Your task to perform on an android device: Search for Mexican restaurants on Maps Image 0: 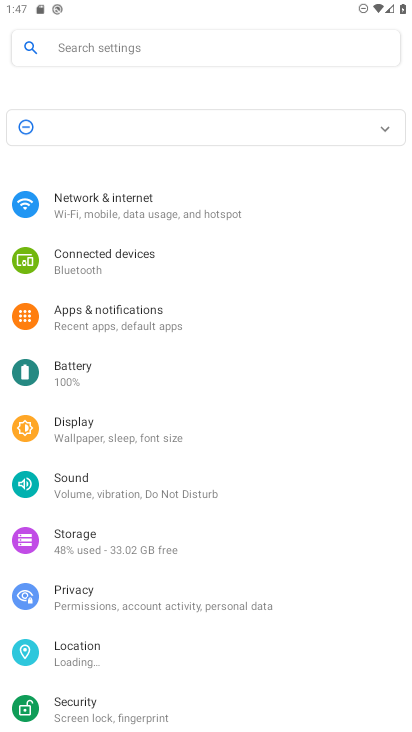
Step 0: drag from (177, 666) to (191, 567)
Your task to perform on an android device: Search for Mexican restaurants on Maps Image 1: 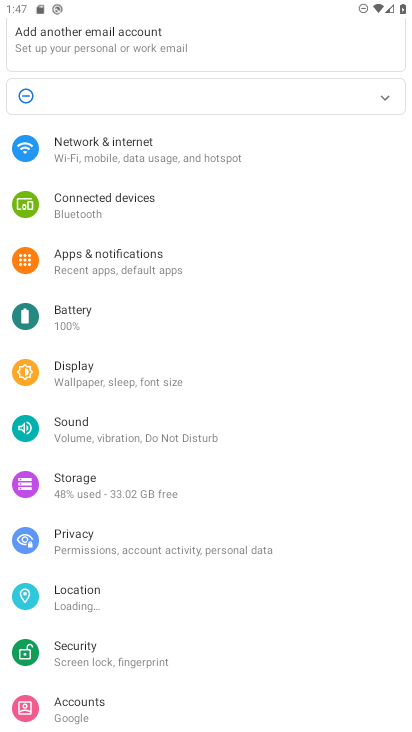
Step 1: press home button
Your task to perform on an android device: Search for Mexican restaurants on Maps Image 2: 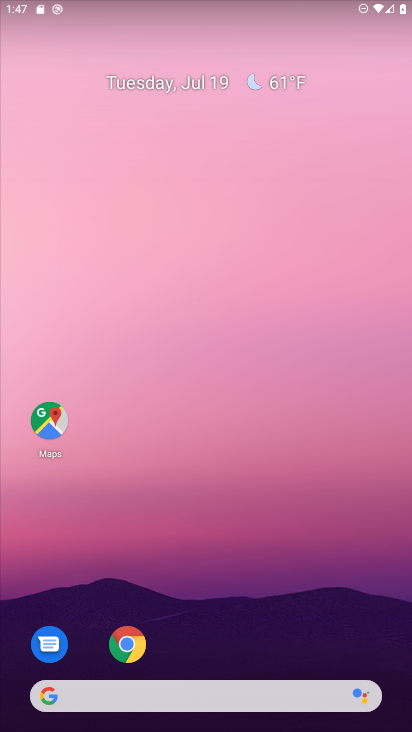
Step 2: drag from (221, 669) to (200, 179)
Your task to perform on an android device: Search for Mexican restaurants on Maps Image 3: 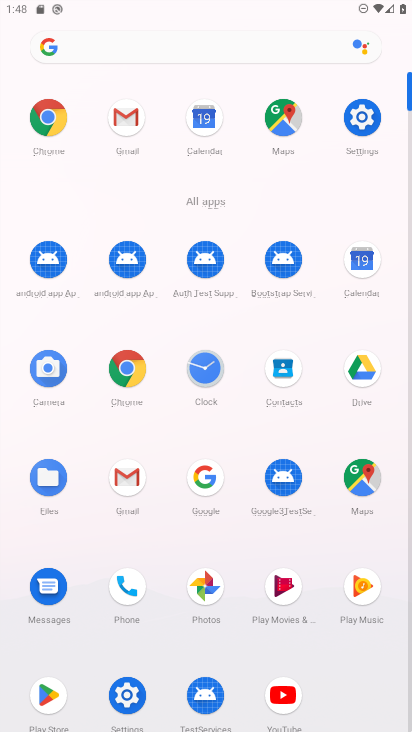
Step 3: click (371, 483)
Your task to perform on an android device: Search for Mexican restaurants on Maps Image 4: 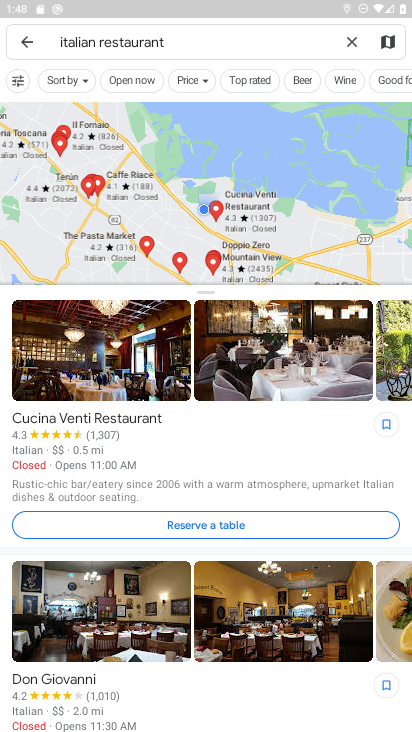
Step 4: click (349, 43)
Your task to perform on an android device: Search for Mexican restaurants on Maps Image 5: 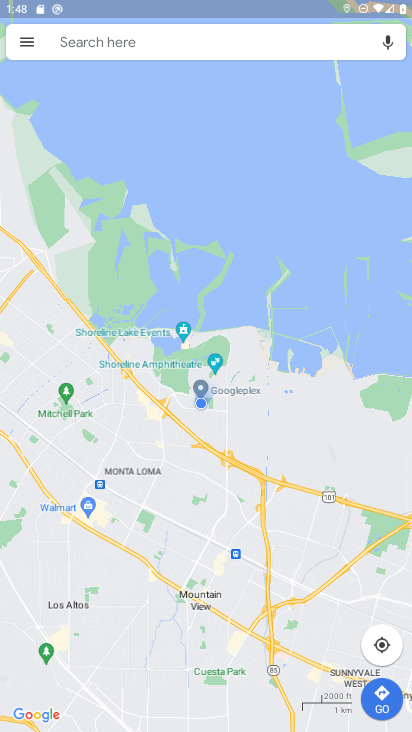
Step 5: click (199, 34)
Your task to perform on an android device: Search for Mexican restaurants on Maps Image 6: 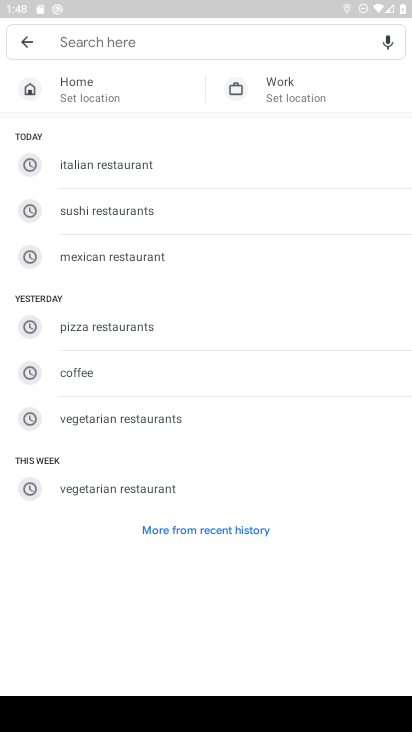
Step 6: click (96, 247)
Your task to perform on an android device: Search for Mexican restaurants on Maps Image 7: 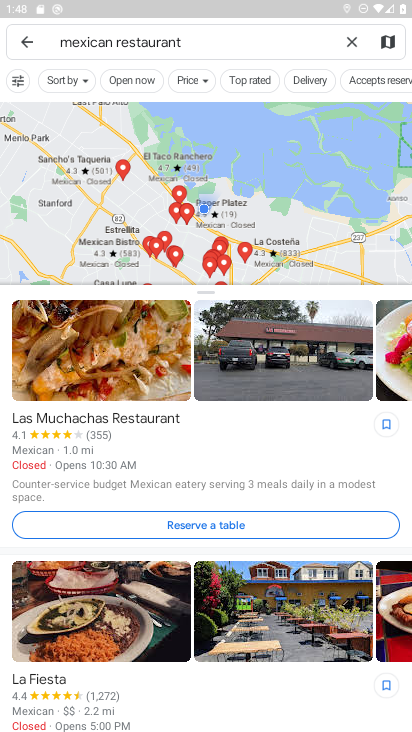
Step 7: task complete